Your task to perform on an android device: Set the phone to "Do not disturb". Image 0: 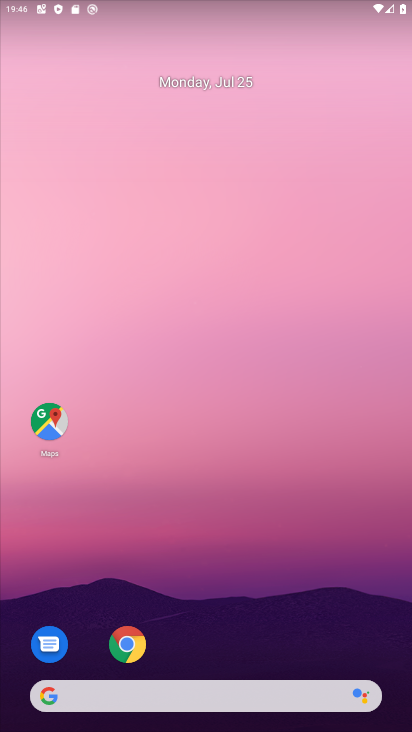
Step 0: press home button
Your task to perform on an android device: Set the phone to "Do not disturb". Image 1: 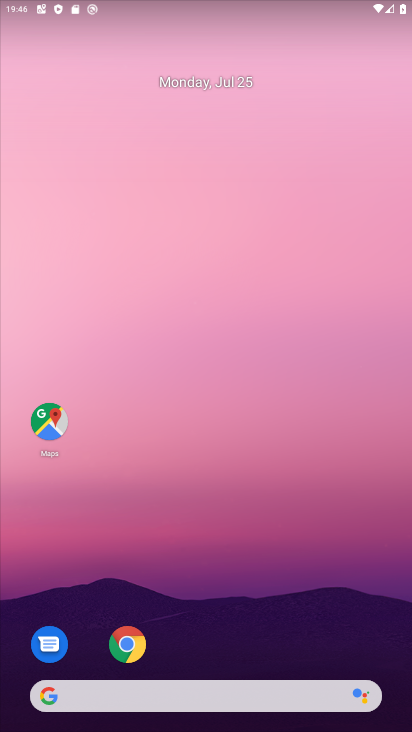
Step 1: drag from (174, 7) to (191, 454)
Your task to perform on an android device: Set the phone to "Do not disturb". Image 2: 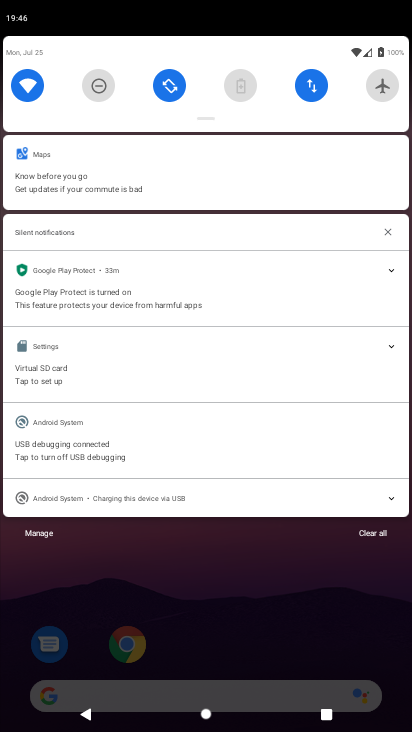
Step 2: click (100, 86)
Your task to perform on an android device: Set the phone to "Do not disturb". Image 3: 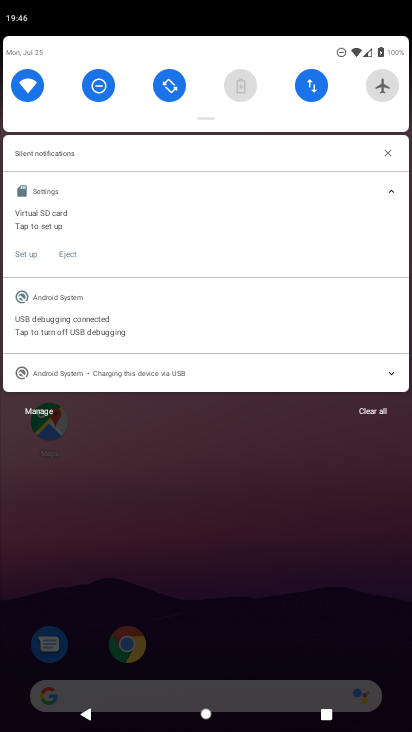
Step 3: task complete